Your task to perform on an android device: Go to ESPN.com Image 0: 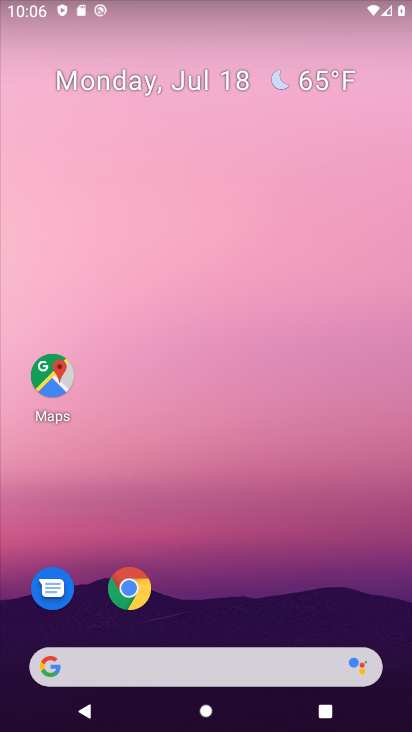
Step 0: press home button
Your task to perform on an android device: Go to ESPN.com Image 1: 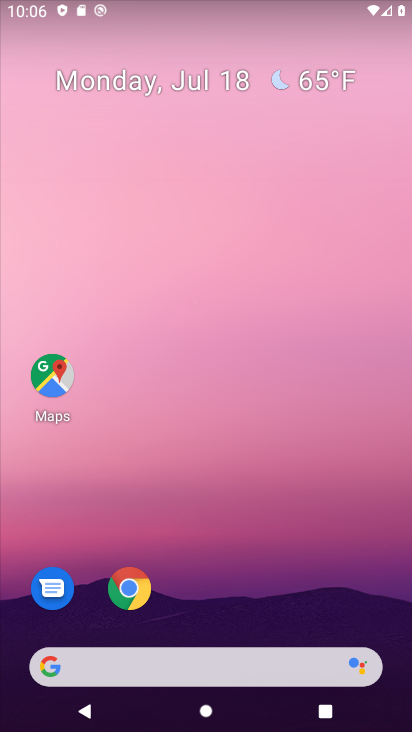
Step 1: click (47, 663)
Your task to perform on an android device: Go to ESPN.com Image 2: 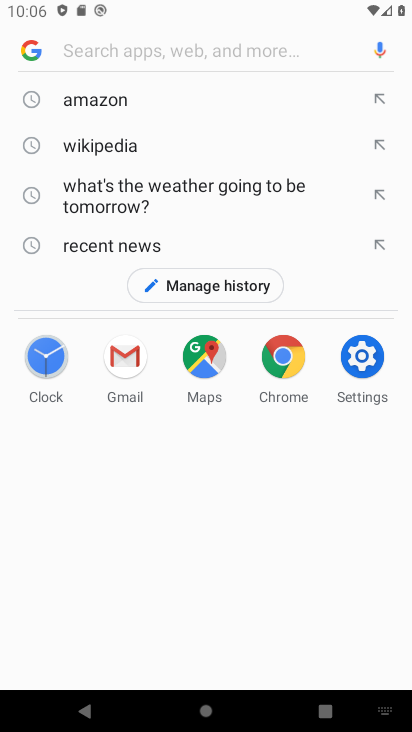
Step 2: type " ESPN.com"
Your task to perform on an android device: Go to ESPN.com Image 3: 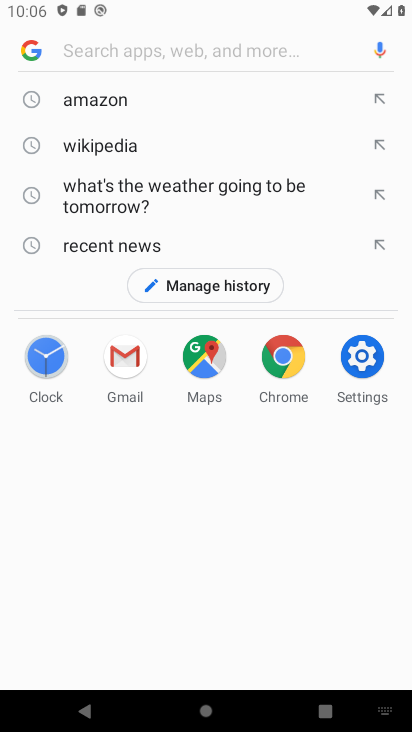
Step 3: click (86, 45)
Your task to perform on an android device: Go to ESPN.com Image 4: 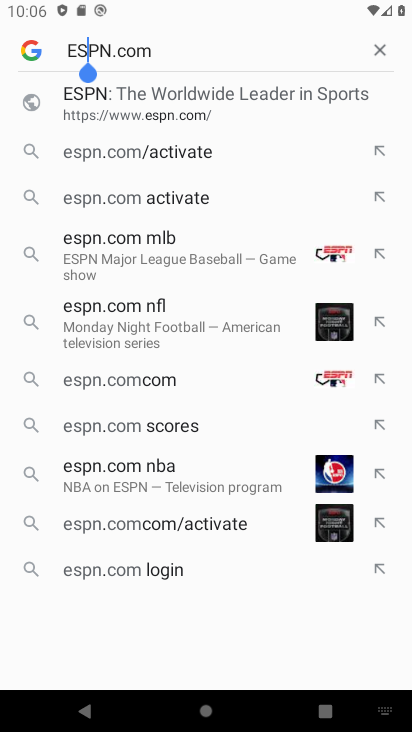
Step 4: press enter
Your task to perform on an android device: Go to ESPN.com Image 5: 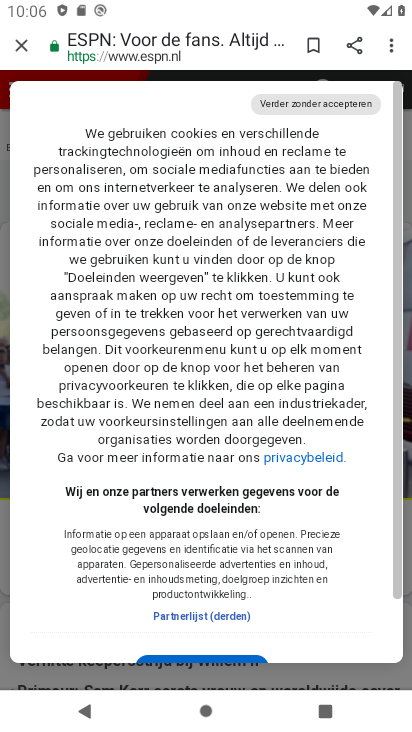
Step 5: drag from (277, 604) to (279, 294)
Your task to perform on an android device: Go to ESPN.com Image 6: 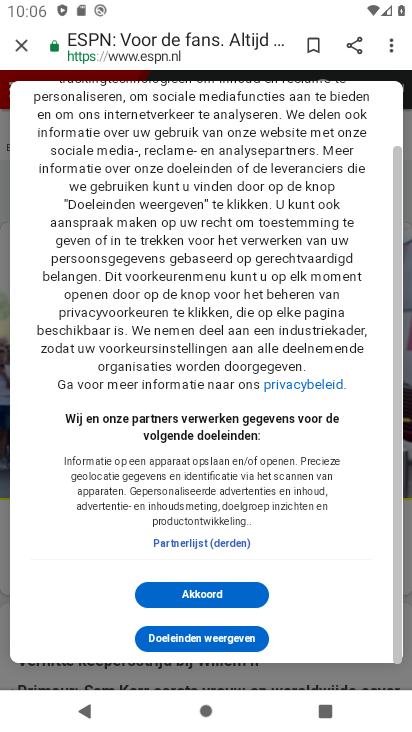
Step 6: click (205, 598)
Your task to perform on an android device: Go to ESPN.com Image 7: 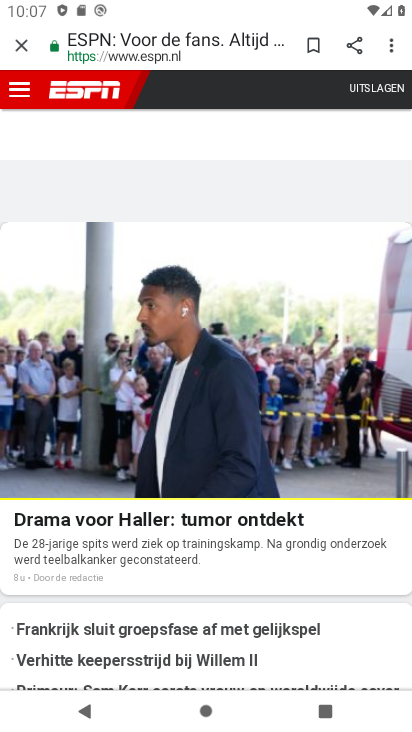
Step 7: task complete